Your task to perform on an android device: search for starred emails in the gmail app Image 0: 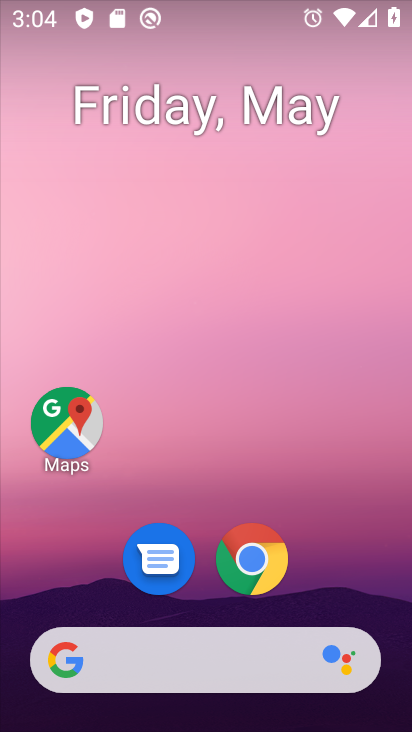
Step 0: drag from (351, 571) to (203, 112)
Your task to perform on an android device: search for starred emails in the gmail app Image 1: 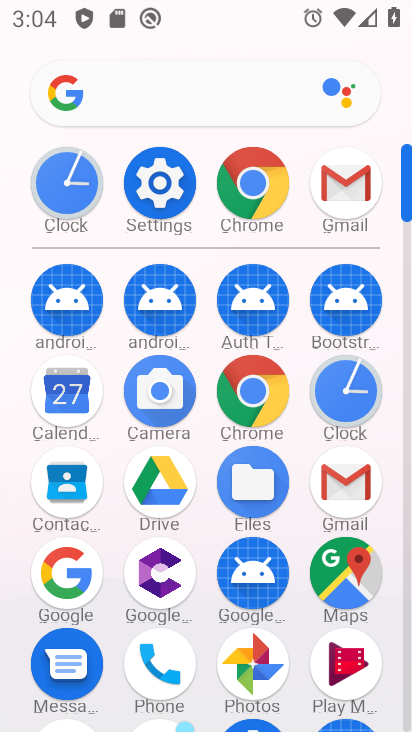
Step 1: click (349, 497)
Your task to perform on an android device: search for starred emails in the gmail app Image 2: 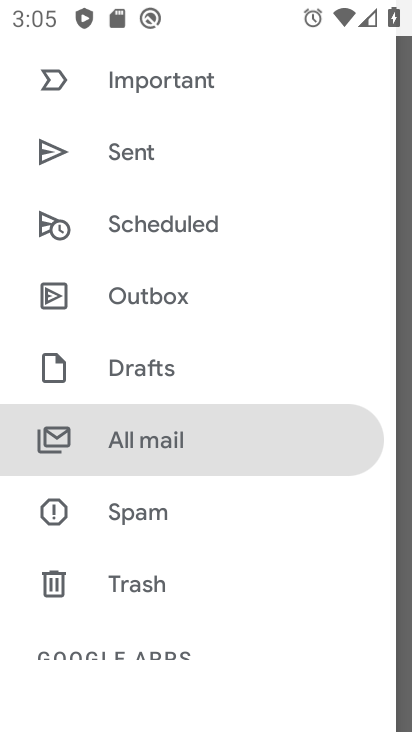
Step 2: drag from (157, 235) to (232, 559)
Your task to perform on an android device: search for starred emails in the gmail app Image 3: 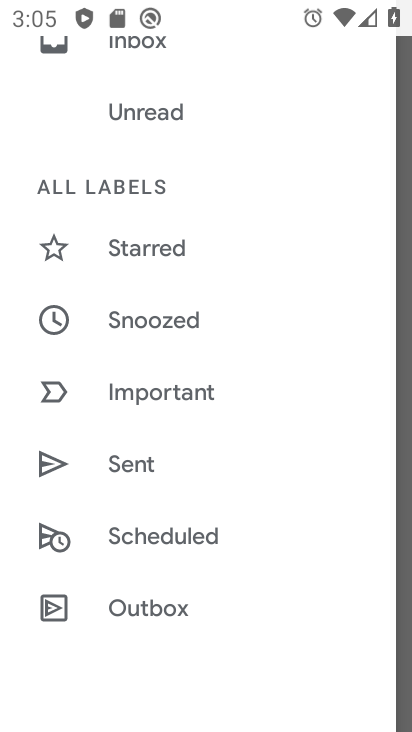
Step 3: click (183, 265)
Your task to perform on an android device: search for starred emails in the gmail app Image 4: 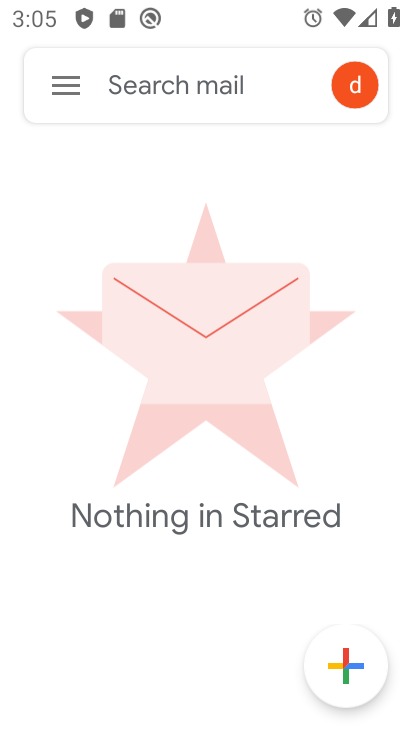
Step 4: task complete